Your task to perform on an android device: turn on translation in the chrome app Image 0: 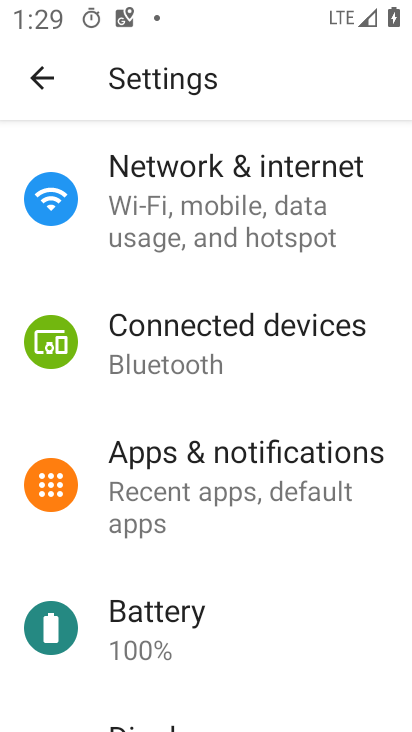
Step 0: press home button
Your task to perform on an android device: turn on translation in the chrome app Image 1: 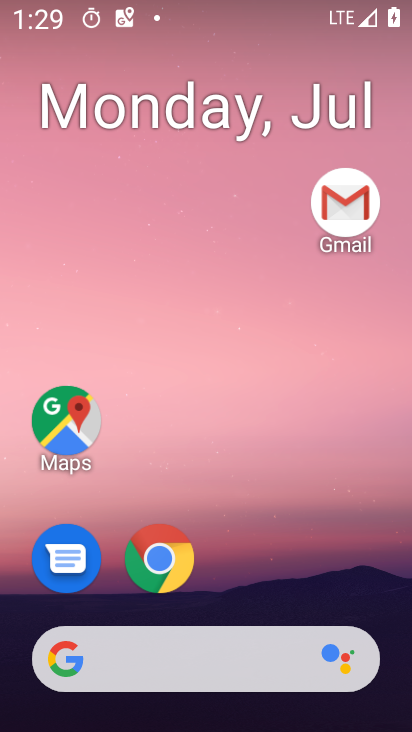
Step 1: drag from (337, 533) to (366, 121)
Your task to perform on an android device: turn on translation in the chrome app Image 2: 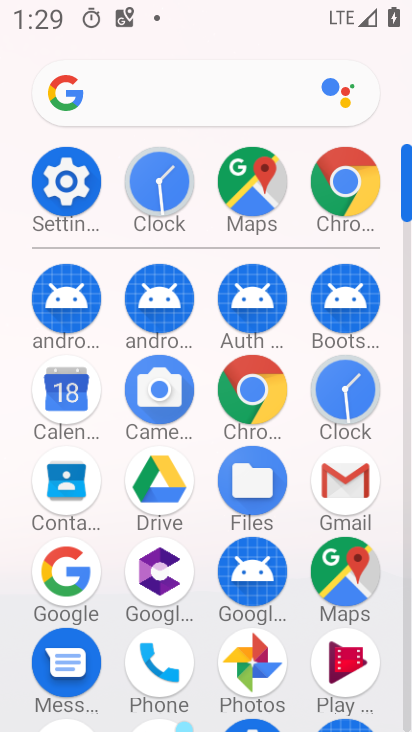
Step 2: click (264, 394)
Your task to perform on an android device: turn on translation in the chrome app Image 3: 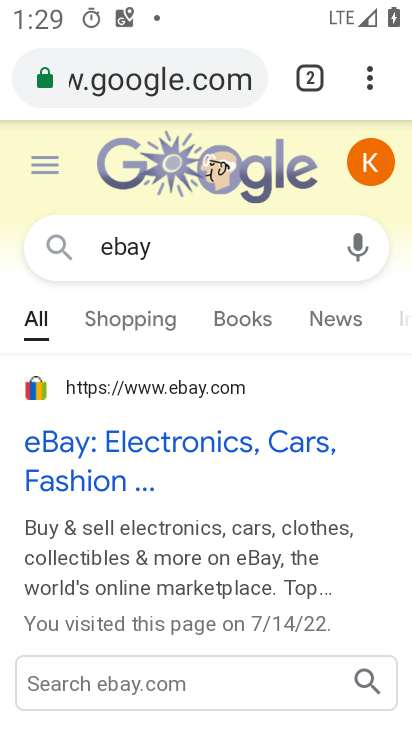
Step 3: click (367, 89)
Your task to perform on an android device: turn on translation in the chrome app Image 4: 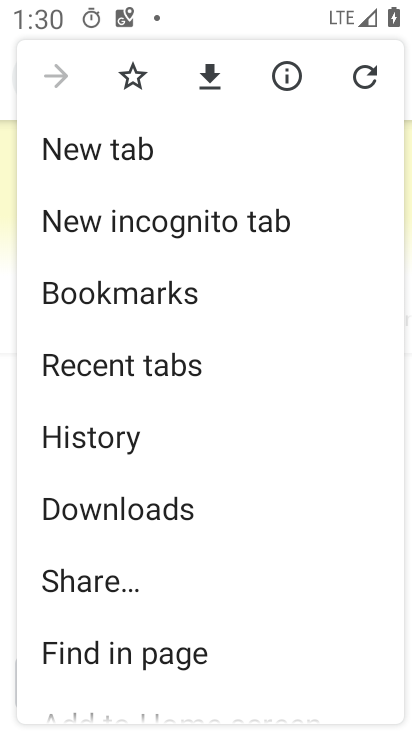
Step 4: drag from (357, 368) to (353, 309)
Your task to perform on an android device: turn on translation in the chrome app Image 5: 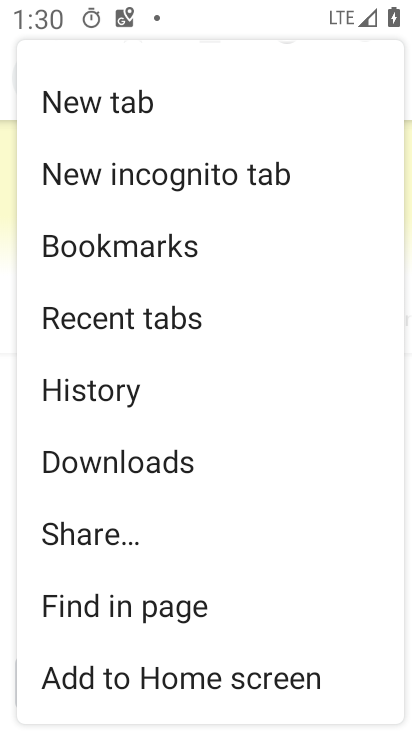
Step 5: drag from (358, 409) to (351, 333)
Your task to perform on an android device: turn on translation in the chrome app Image 6: 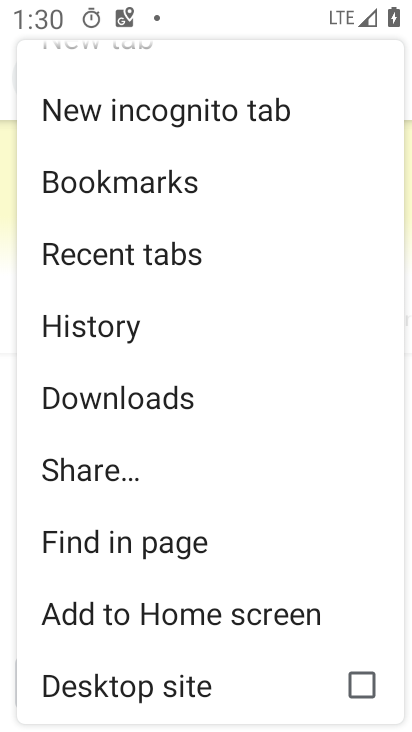
Step 6: drag from (312, 477) to (315, 437)
Your task to perform on an android device: turn on translation in the chrome app Image 7: 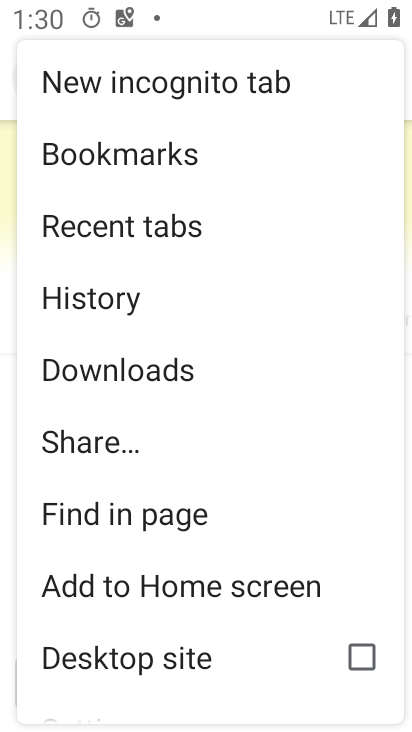
Step 7: drag from (294, 502) to (295, 400)
Your task to perform on an android device: turn on translation in the chrome app Image 8: 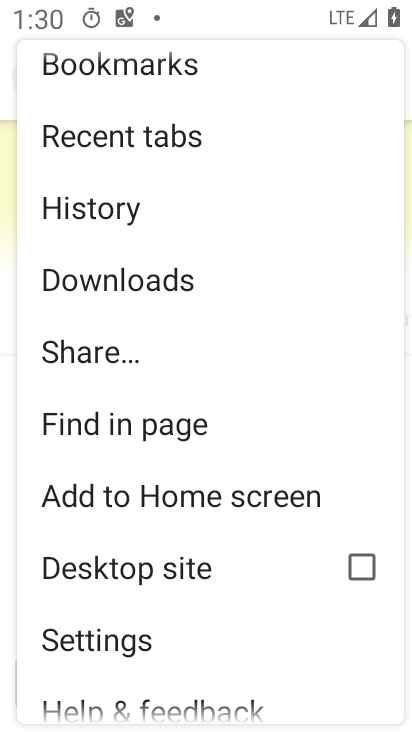
Step 8: click (208, 635)
Your task to perform on an android device: turn on translation in the chrome app Image 9: 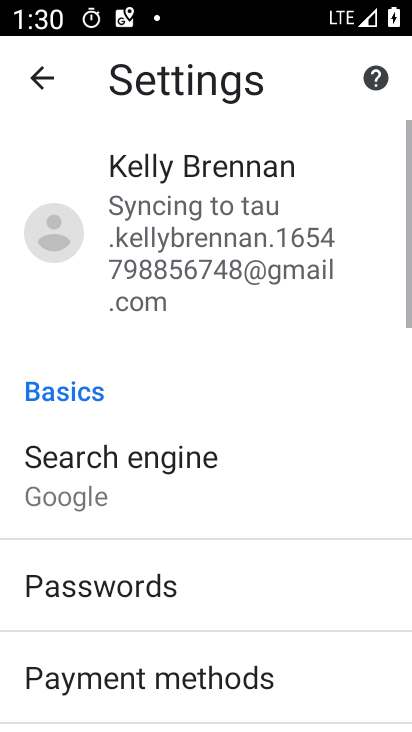
Step 9: drag from (332, 590) to (350, 475)
Your task to perform on an android device: turn on translation in the chrome app Image 10: 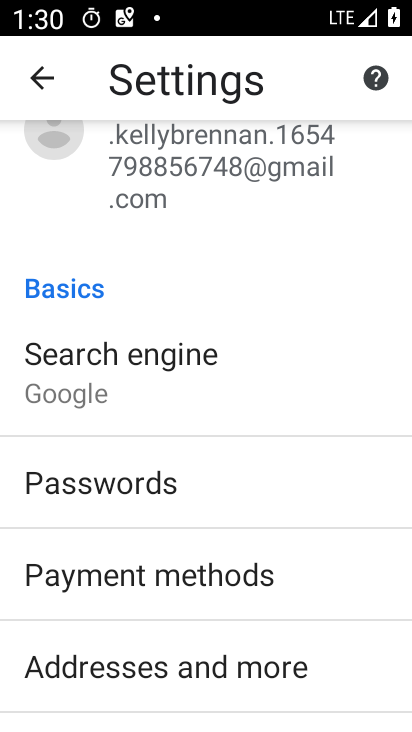
Step 10: drag from (354, 571) to (356, 501)
Your task to perform on an android device: turn on translation in the chrome app Image 11: 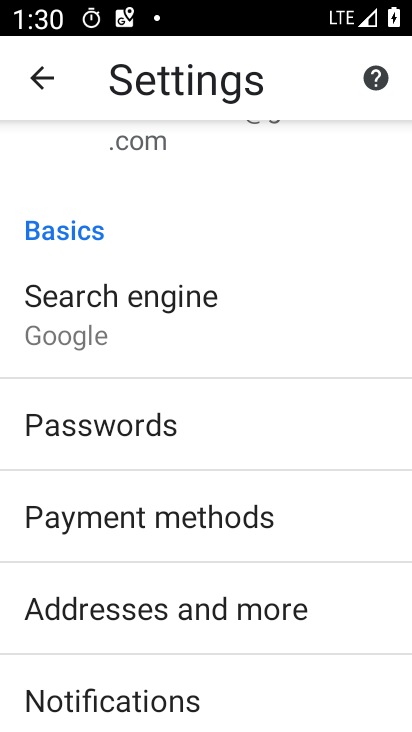
Step 11: drag from (351, 559) to (358, 475)
Your task to perform on an android device: turn on translation in the chrome app Image 12: 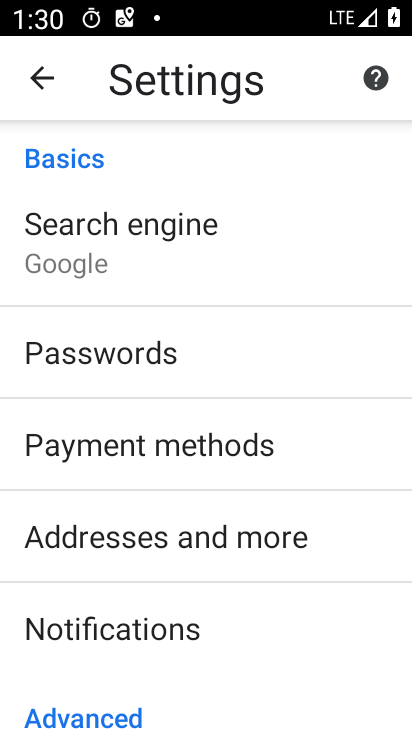
Step 12: drag from (349, 531) to (350, 462)
Your task to perform on an android device: turn on translation in the chrome app Image 13: 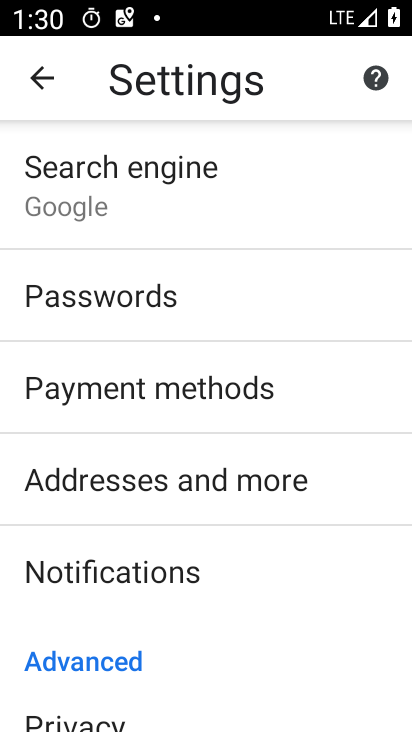
Step 13: drag from (323, 560) to (336, 497)
Your task to perform on an android device: turn on translation in the chrome app Image 14: 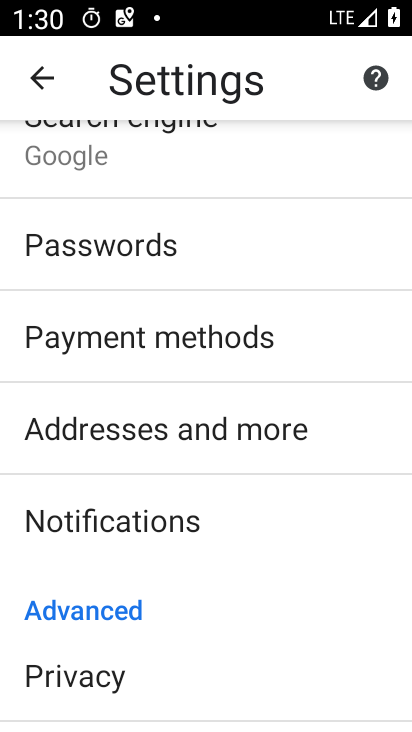
Step 14: drag from (329, 549) to (339, 485)
Your task to perform on an android device: turn on translation in the chrome app Image 15: 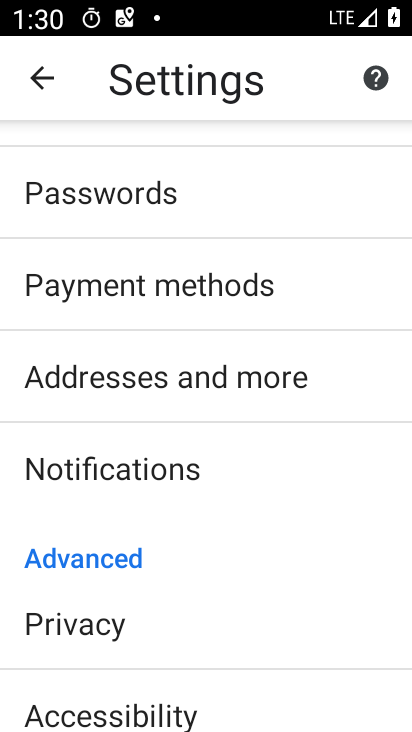
Step 15: drag from (326, 574) to (331, 497)
Your task to perform on an android device: turn on translation in the chrome app Image 16: 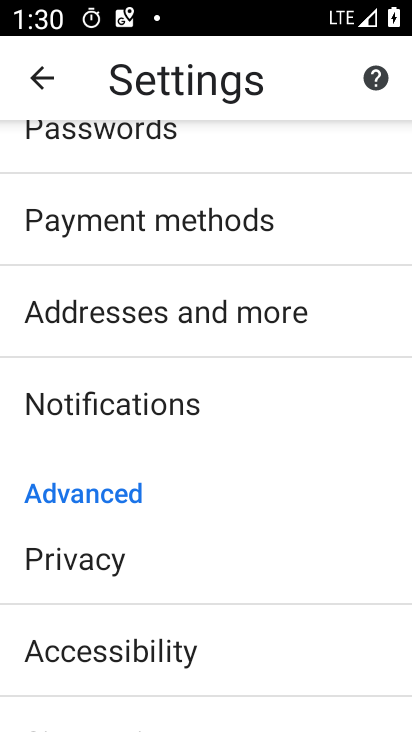
Step 16: drag from (318, 600) to (327, 510)
Your task to perform on an android device: turn on translation in the chrome app Image 17: 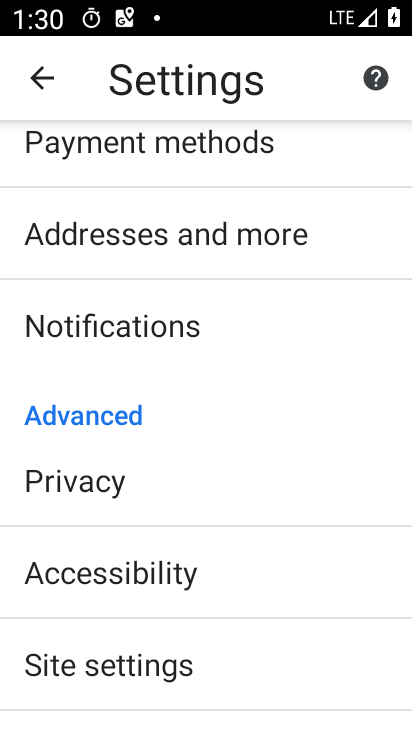
Step 17: drag from (316, 612) to (322, 522)
Your task to perform on an android device: turn on translation in the chrome app Image 18: 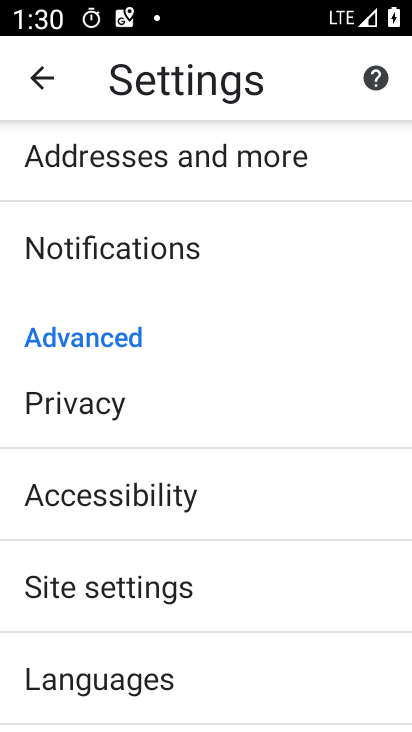
Step 18: drag from (321, 619) to (320, 538)
Your task to perform on an android device: turn on translation in the chrome app Image 19: 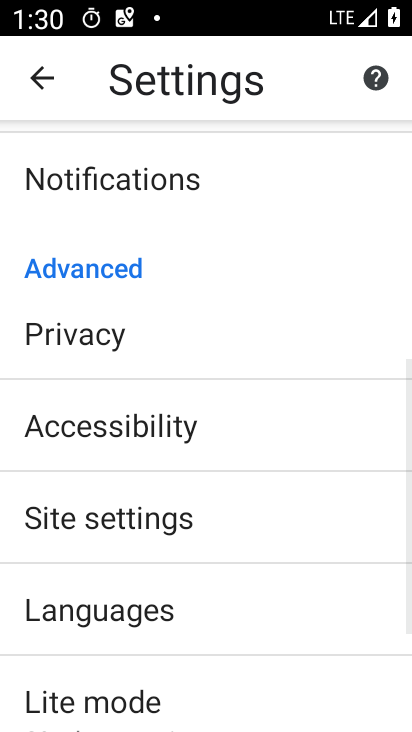
Step 19: drag from (311, 595) to (313, 530)
Your task to perform on an android device: turn on translation in the chrome app Image 20: 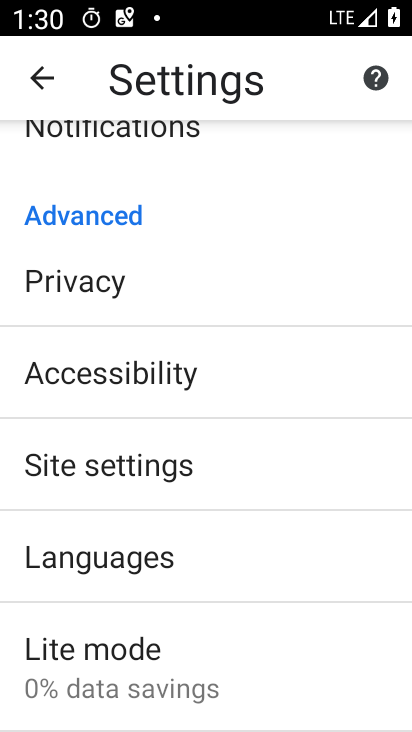
Step 20: drag from (313, 609) to (319, 555)
Your task to perform on an android device: turn on translation in the chrome app Image 21: 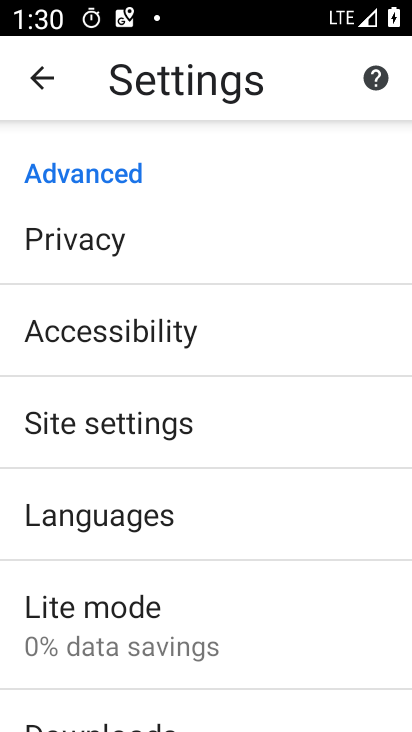
Step 21: drag from (302, 624) to (308, 558)
Your task to perform on an android device: turn on translation in the chrome app Image 22: 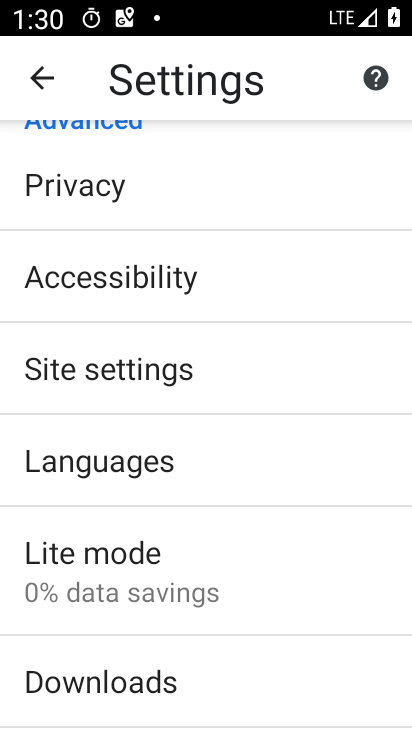
Step 22: drag from (304, 602) to (312, 534)
Your task to perform on an android device: turn on translation in the chrome app Image 23: 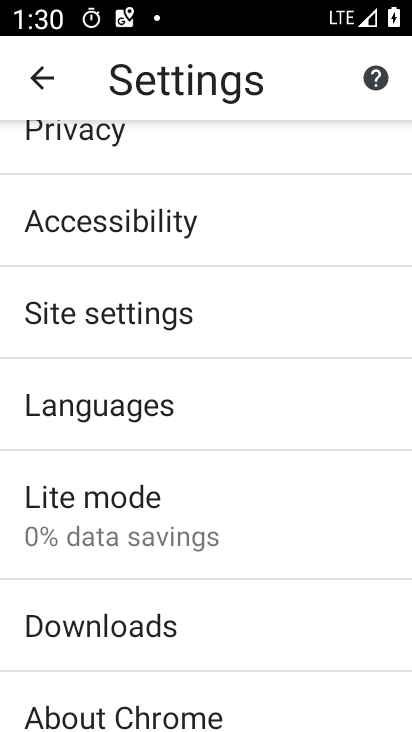
Step 23: drag from (307, 582) to (307, 505)
Your task to perform on an android device: turn on translation in the chrome app Image 24: 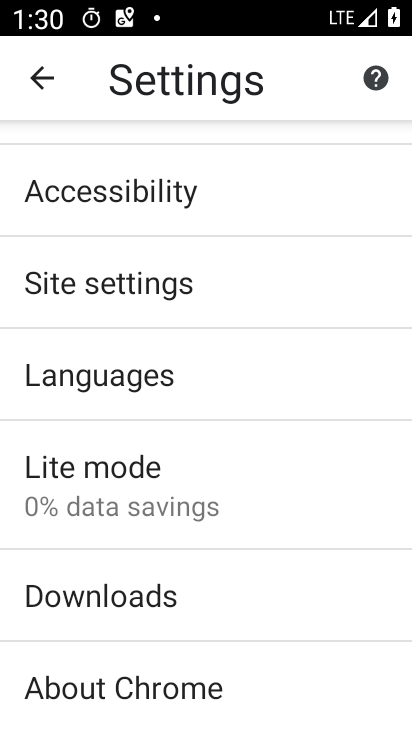
Step 24: click (302, 391)
Your task to perform on an android device: turn on translation in the chrome app Image 25: 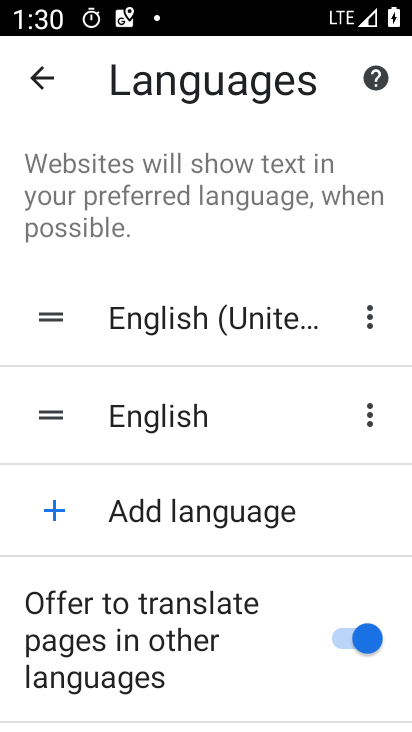
Step 25: task complete